Your task to perform on an android device: Play the last video I watched on Youtube Image 0: 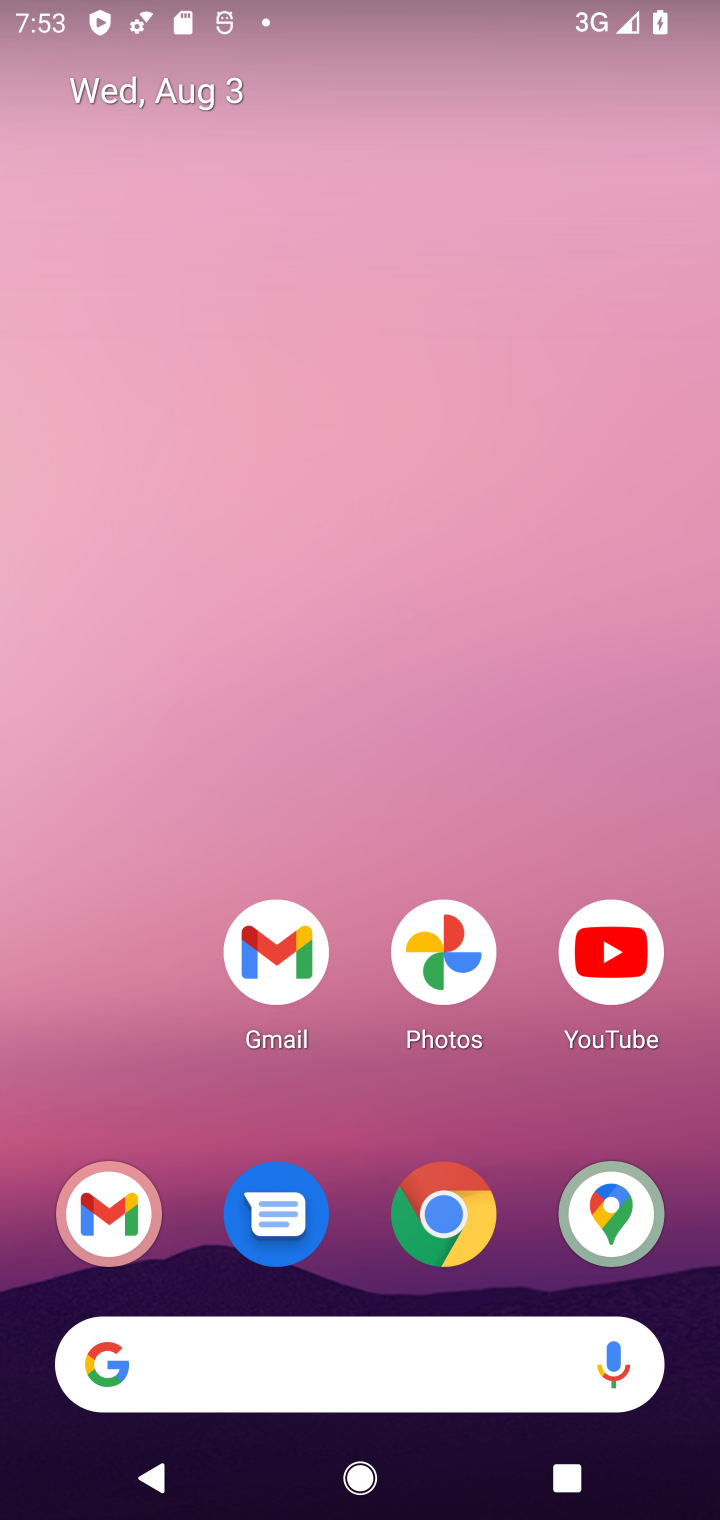
Step 0: click (585, 959)
Your task to perform on an android device: Play the last video I watched on Youtube Image 1: 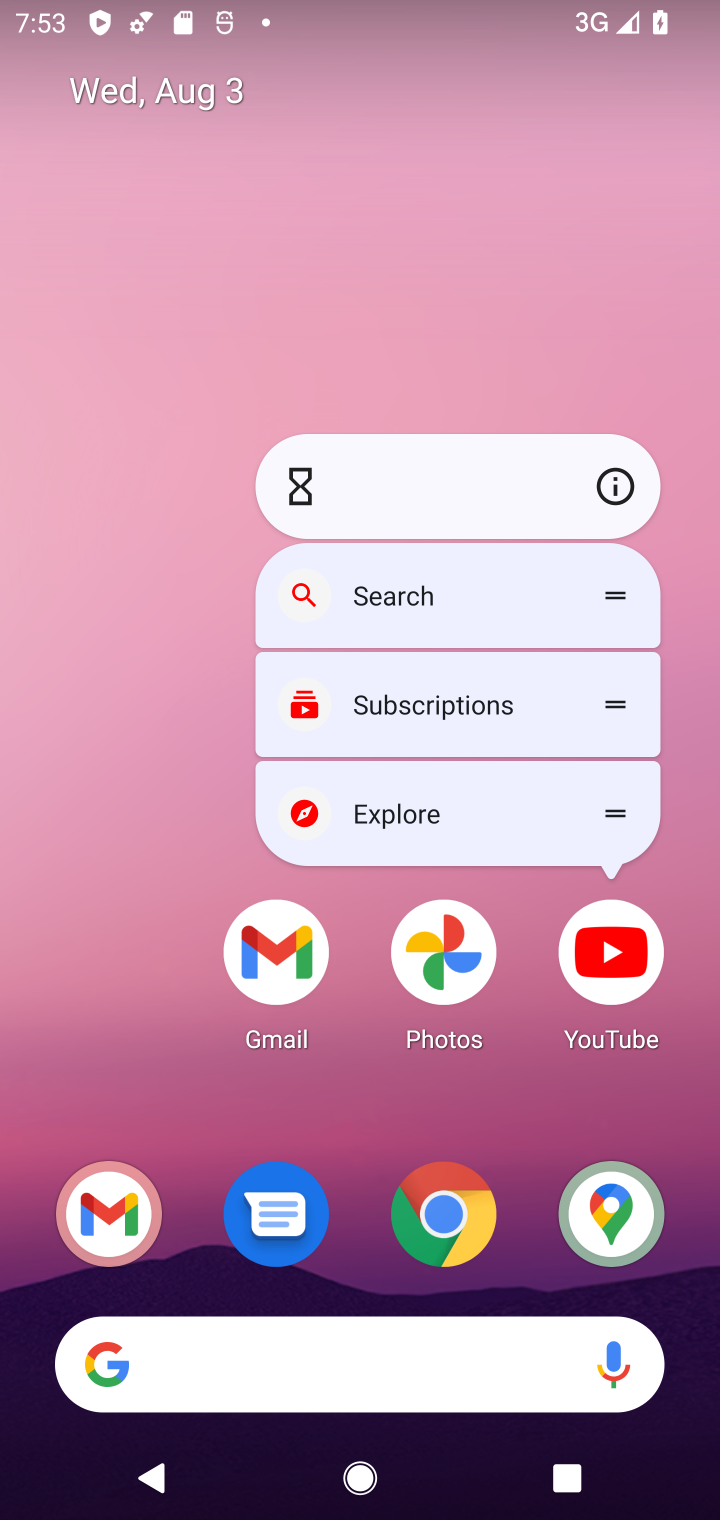
Step 1: click (585, 959)
Your task to perform on an android device: Play the last video I watched on Youtube Image 2: 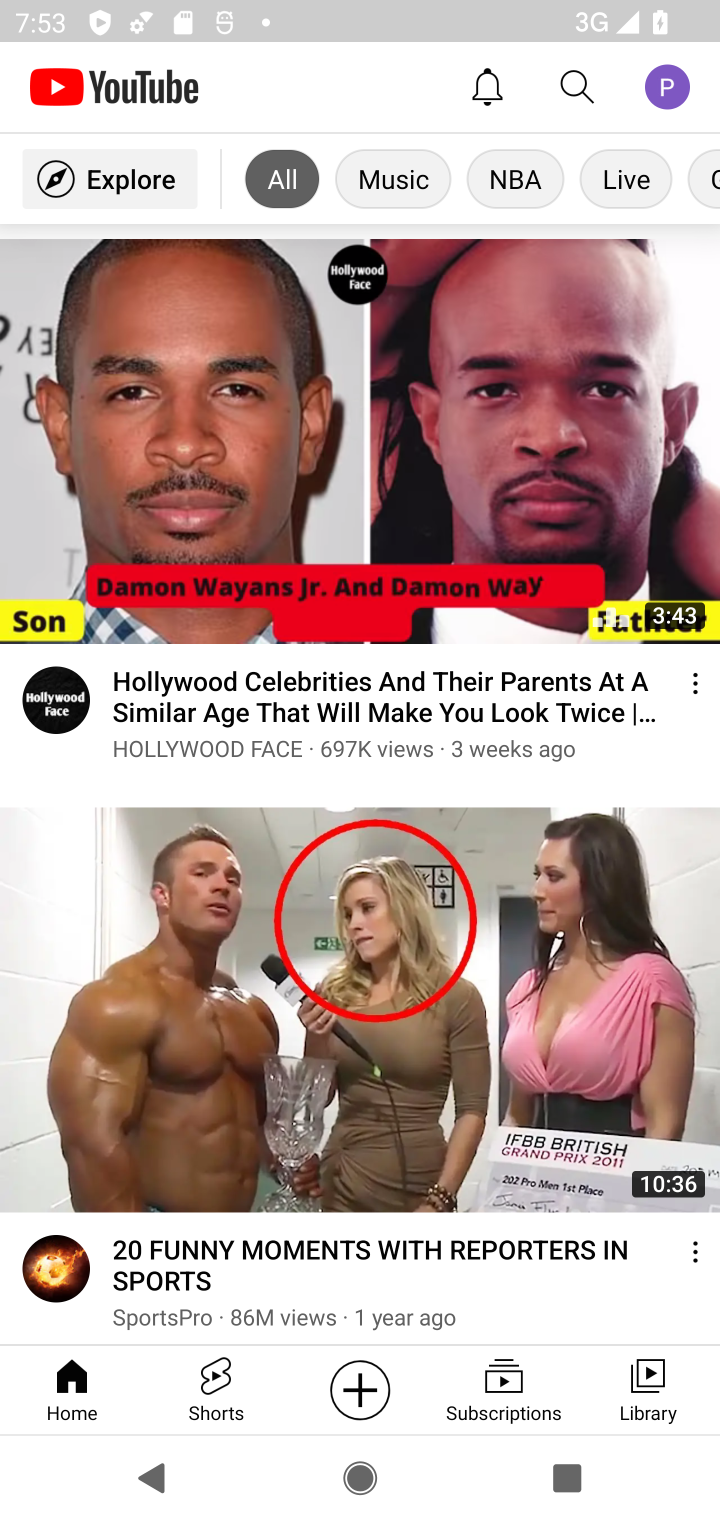
Step 2: click (640, 1397)
Your task to perform on an android device: Play the last video I watched on Youtube Image 3: 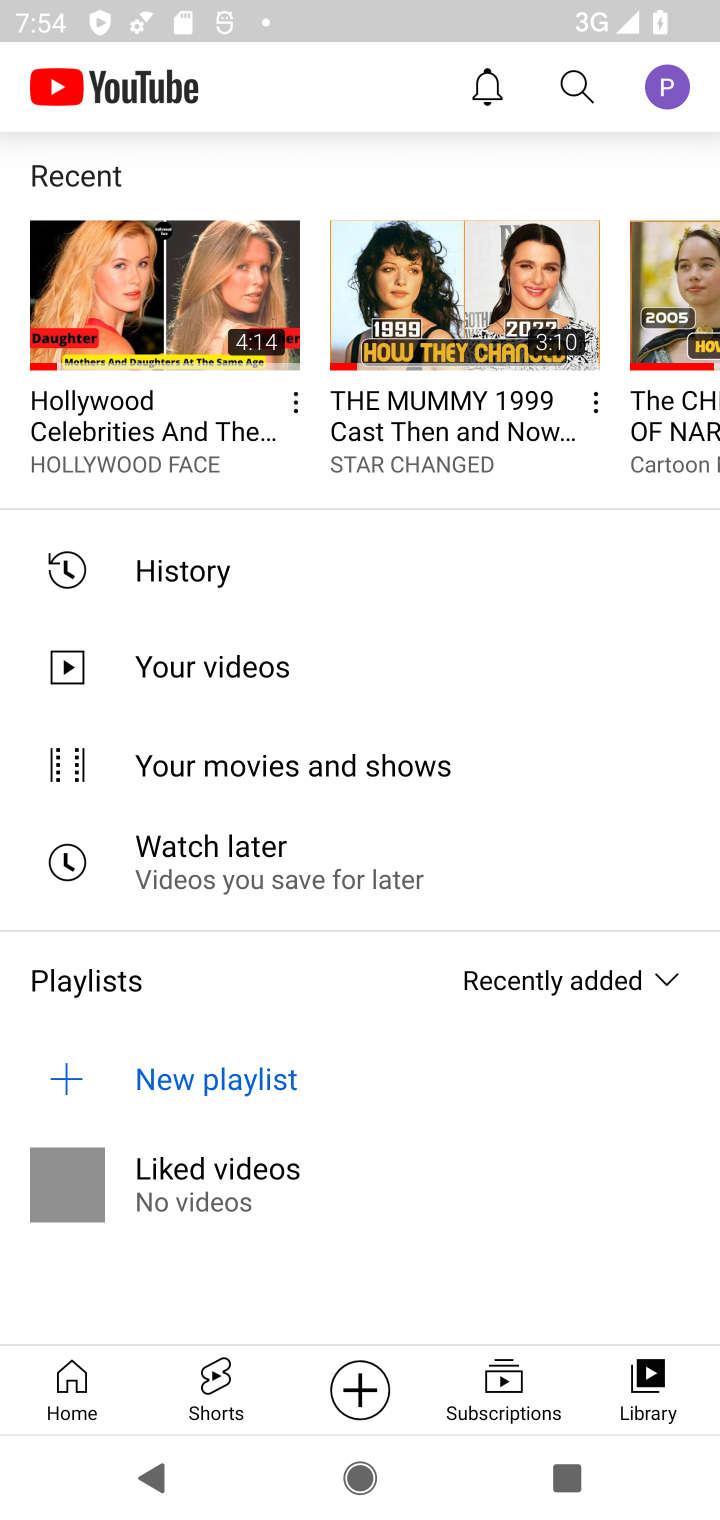
Step 3: click (157, 318)
Your task to perform on an android device: Play the last video I watched on Youtube Image 4: 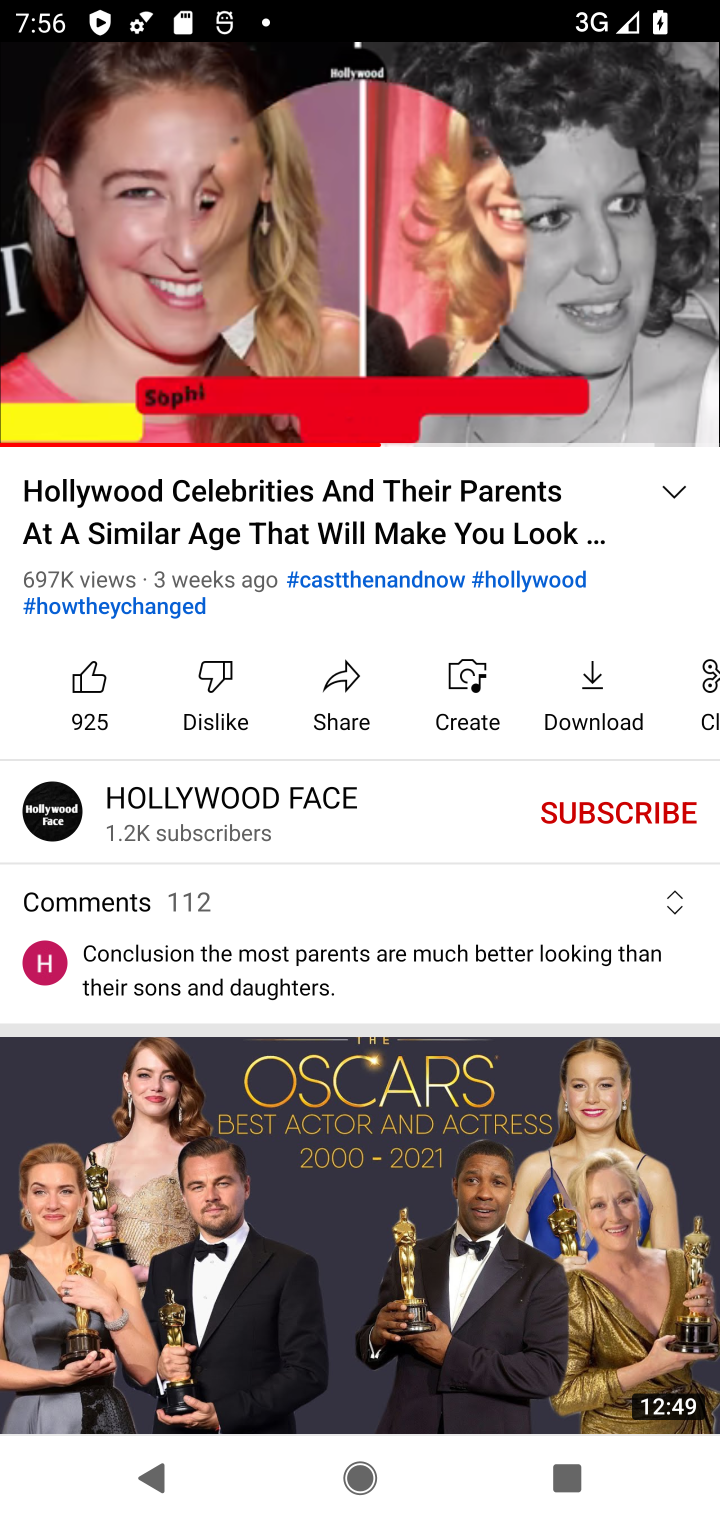
Step 4: task complete